Your task to perform on an android device: change keyboard looks Image 0: 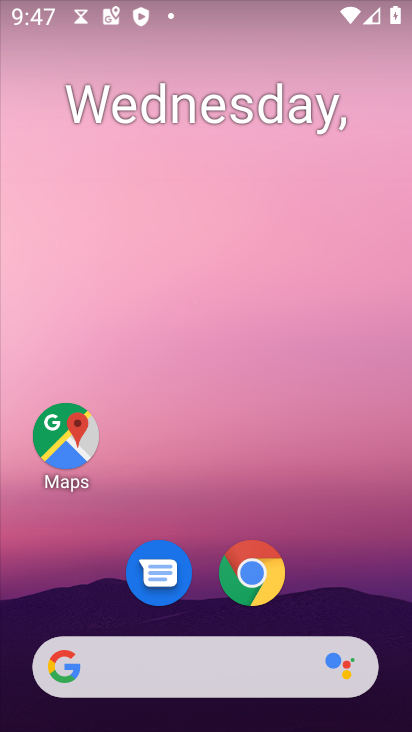
Step 0: drag from (334, 406) to (318, 241)
Your task to perform on an android device: change keyboard looks Image 1: 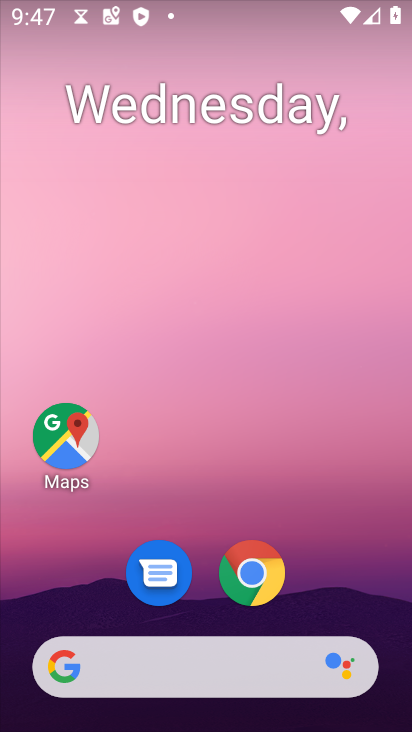
Step 1: drag from (294, 550) to (306, 335)
Your task to perform on an android device: change keyboard looks Image 2: 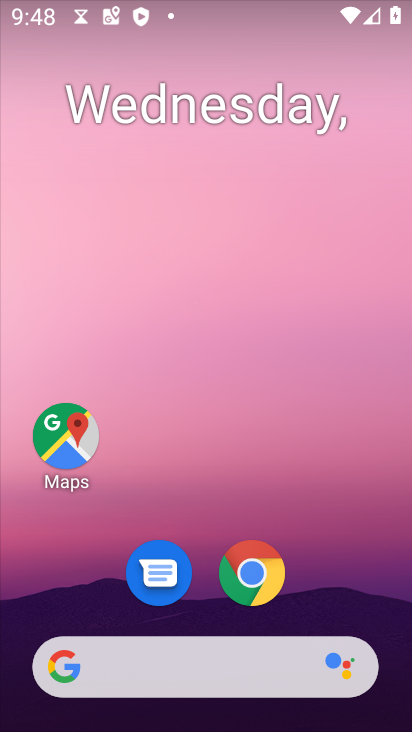
Step 2: drag from (269, 543) to (293, 217)
Your task to perform on an android device: change keyboard looks Image 3: 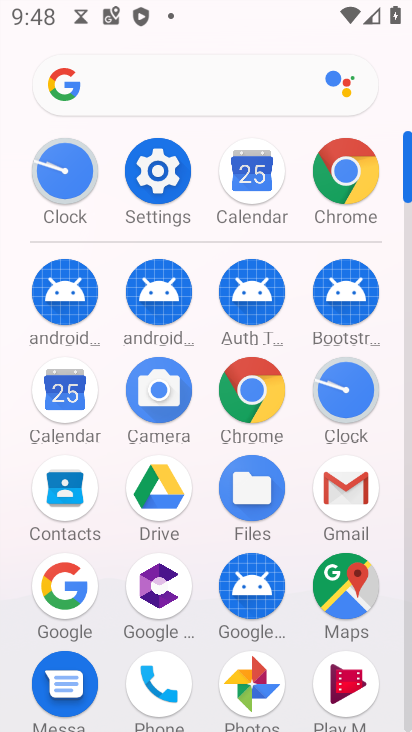
Step 3: click (161, 172)
Your task to perform on an android device: change keyboard looks Image 4: 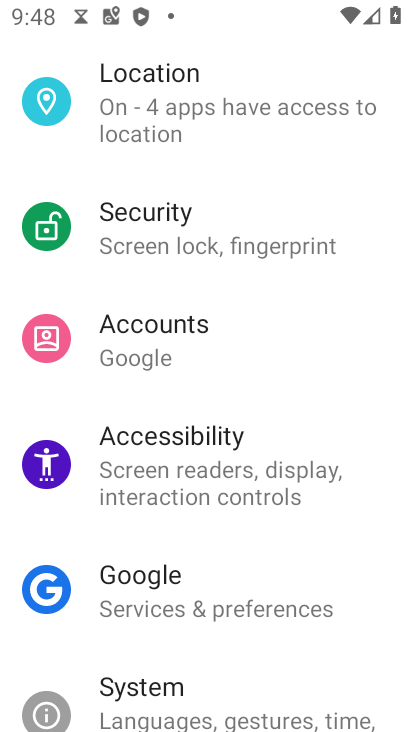
Step 4: drag from (273, 619) to (279, 271)
Your task to perform on an android device: change keyboard looks Image 5: 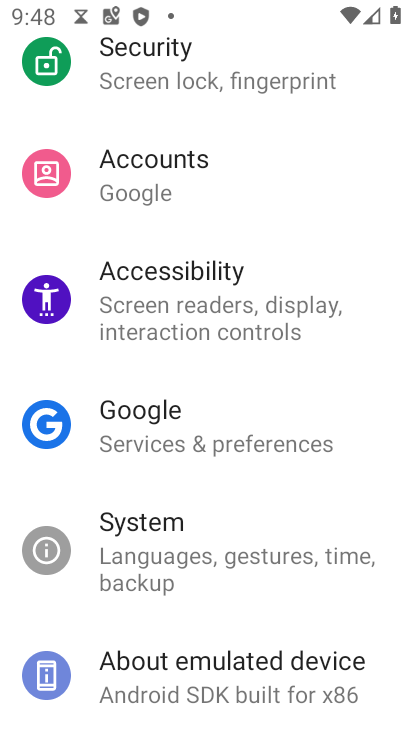
Step 5: click (165, 537)
Your task to perform on an android device: change keyboard looks Image 6: 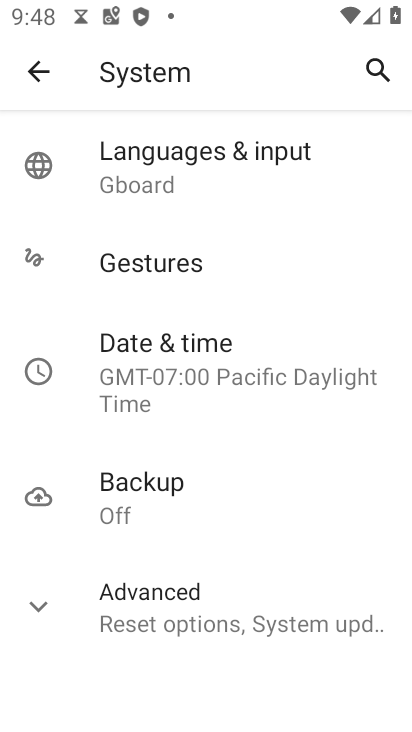
Step 6: click (198, 180)
Your task to perform on an android device: change keyboard looks Image 7: 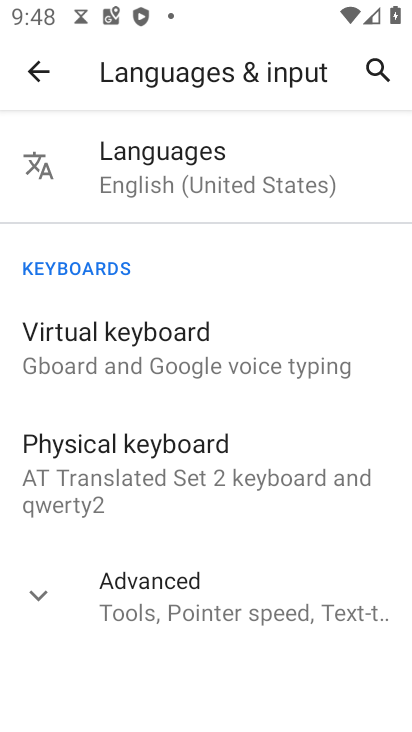
Step 7: click (145, 163)
Your task to perform on an android device: change keyboard looks Image 8: 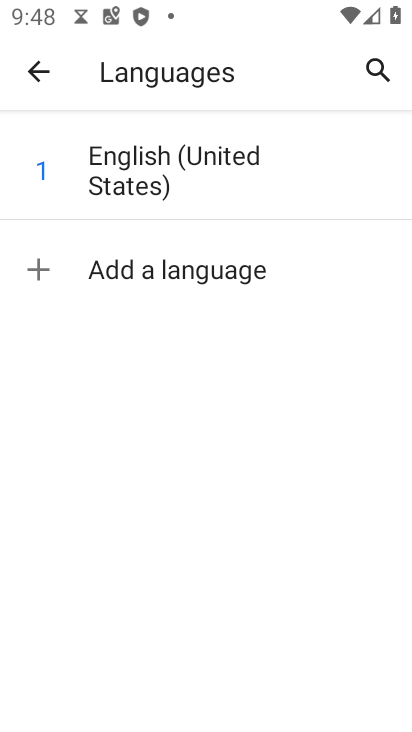
Step 8: click (31, 62)
Your task to perform on an android device: change keyboard looks Image 9: 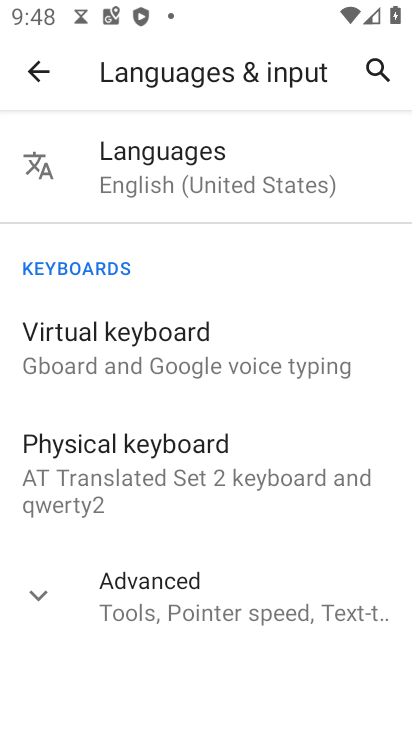
Step 9: click (89, 342)
Your task to perform on an android device: change keyboard looks Image 10: 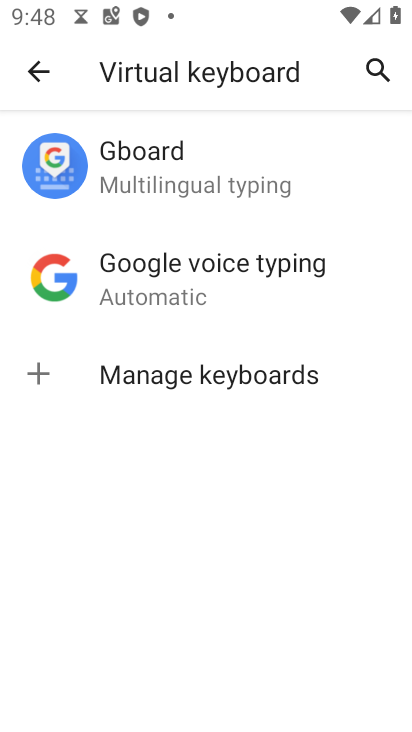
Step 10: click (157, 144)
Your task to perform on an android device: change keyboard looks Image 11: 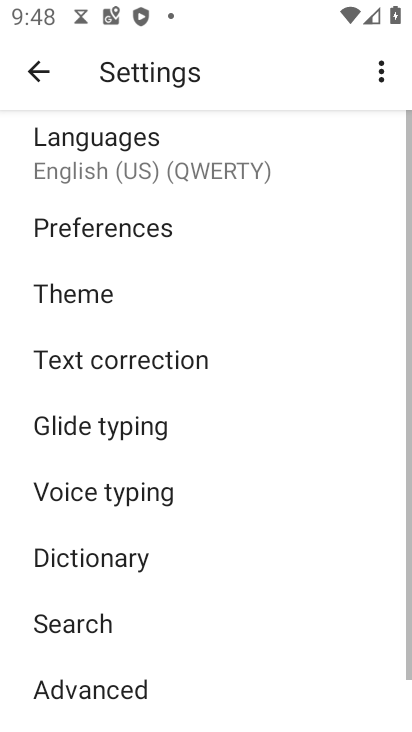
Step 11: click (98, 311)
Your task to perform on an android device: change keyboard looks Image 12: 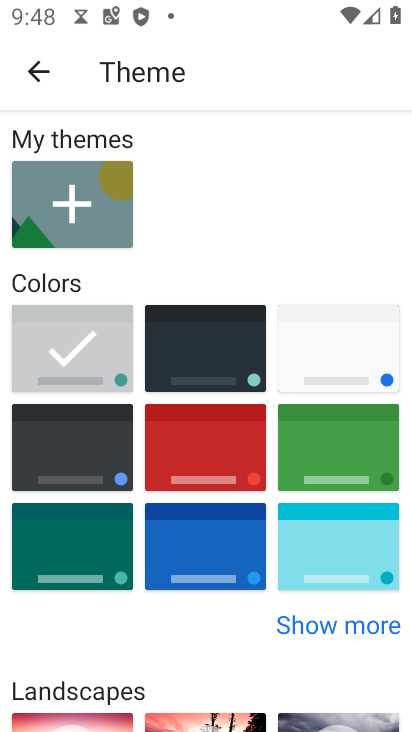
Step 12: click (313, 535)
Your task to perform on an android device: change keyboard looks Image 13: 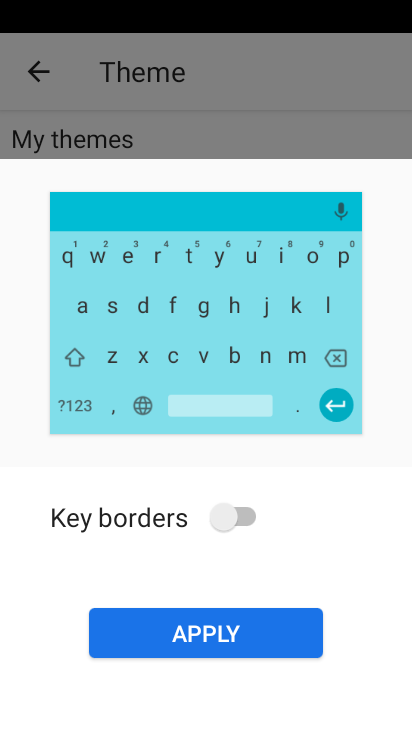
Step 13: click (239, 508)
Your task to perform on an android device: change keyboard looks Image 14: 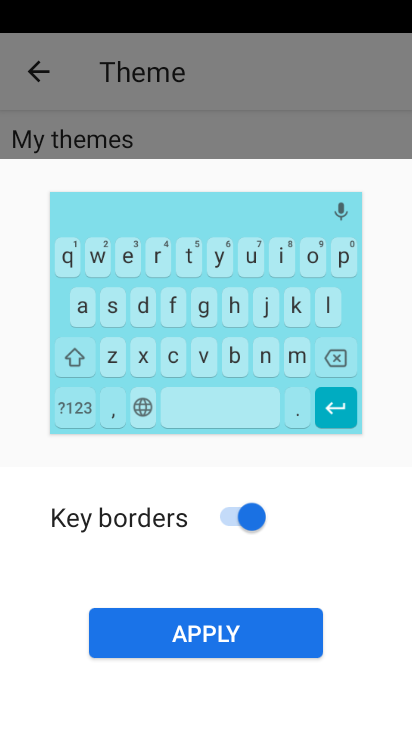
Step 14: click (228, 643)
Your task to perform on an android device: change keyboard looks Image 15: 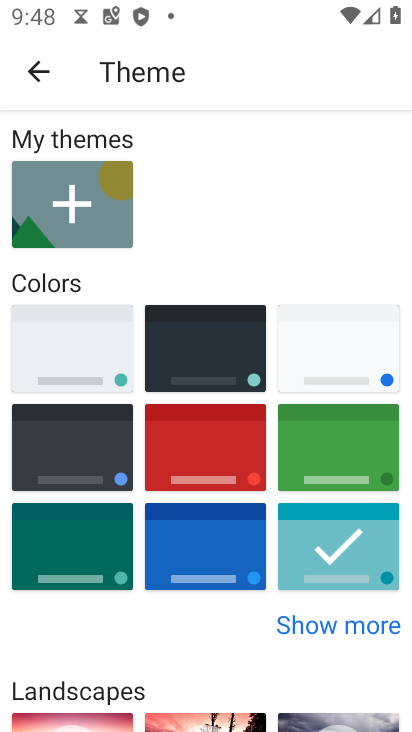
Step 15: task complete